Your task to perform on an android device: Show the shopping cart on newegg. Image 0: 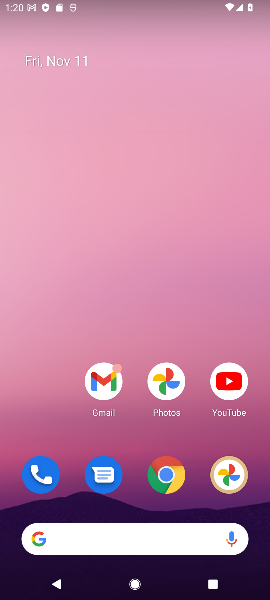
Step 0: drag from (156, 493) to (95, 70)
Your task to perform on an android device: Show the shopping cart on newegg. Image 1: 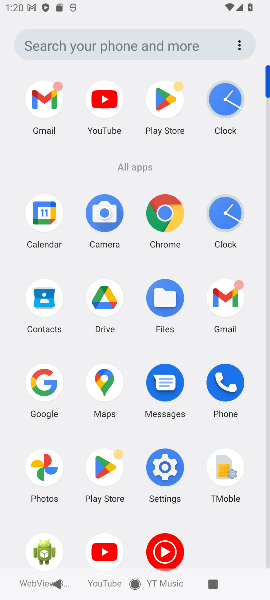
Step 1: click (150, 217)
Your task to perform on an android device: Show the shopping cart on newegg. Image 2: 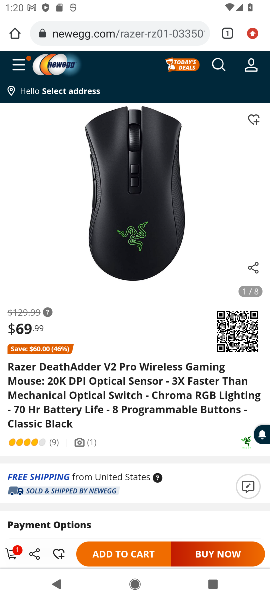
Step 2: click (20, 554)
Your task to perform on an android device: Show the shopping cart on newegg. Image 3: 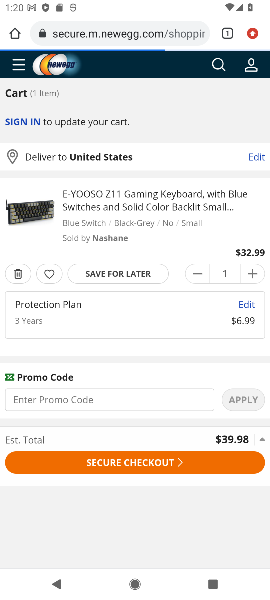
Step 3: click (9, 549)
Your task to perform on an android device: Show the shopping cart on newegg. Image 4: 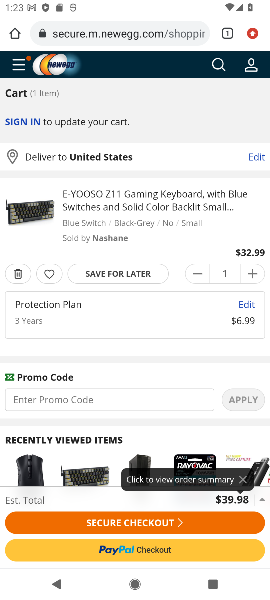
Step 4: task complete